Your task to perform on an android device: Go to eBay Image 0: 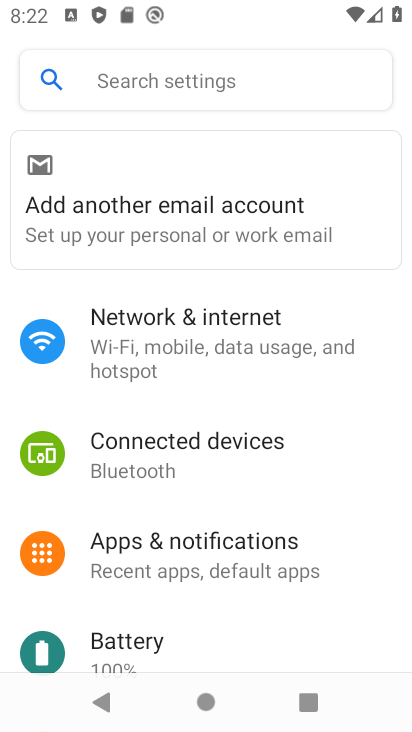
Step 0: press home button
Your task to perform on an android device: Go to eBay Image 1: 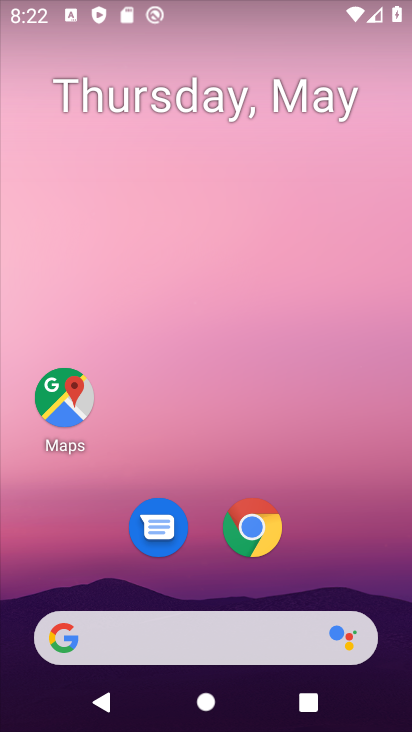
Step 1: click (249, 542)
Your task to perform on an android device: Go to eBay Image 2: 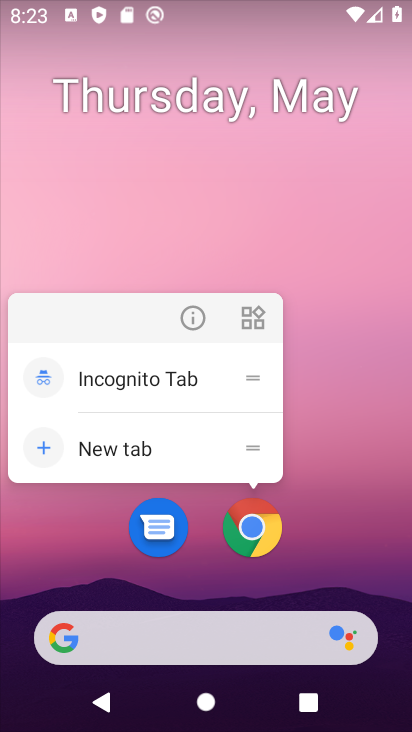
Step 2: click (236, 530)
Your task to perform on an android device: Go to eBay Image 3: 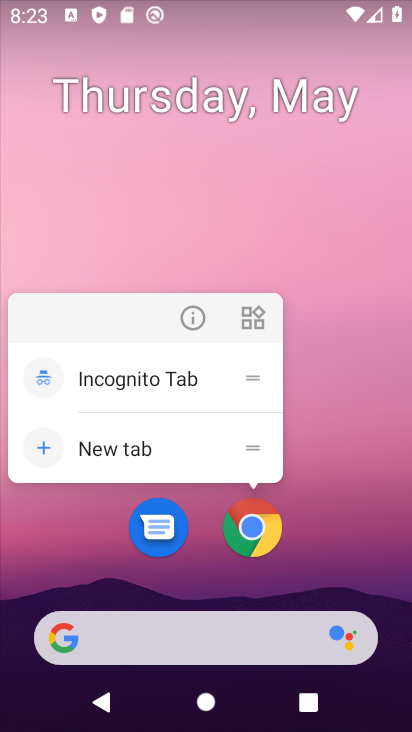
Step 3: click (247, 527)
Your task to perform on an android device: Go to eBay Image 4: 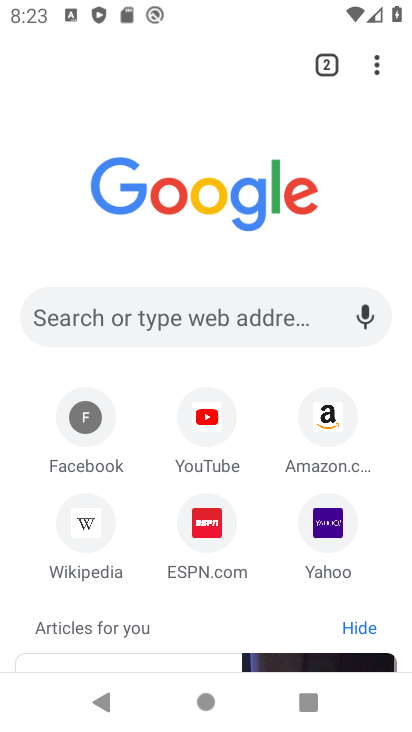
Step 4: click (203, 311)
Your task to perform on an android device: Go to eBay Image 5: 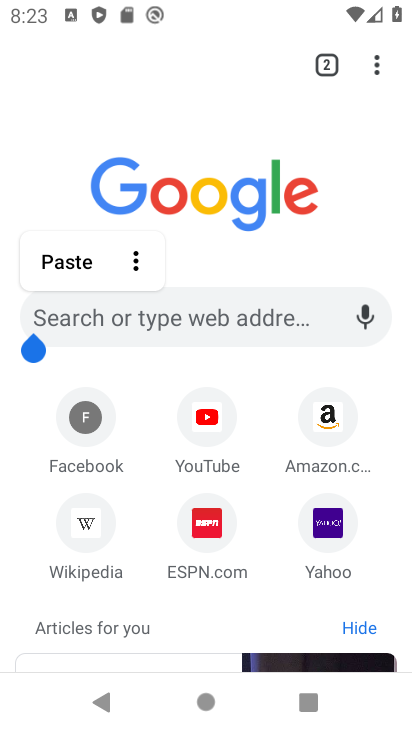
Step 5: click (154, 316)
Your task to perform on an android device: Go to eBay Image 6: 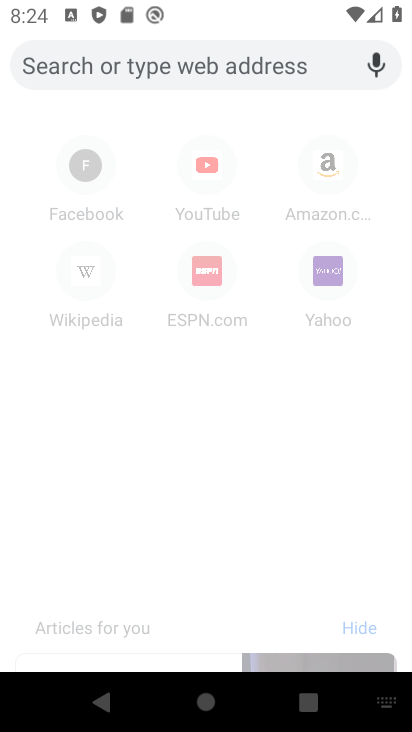
Step 6: type "eBay"
Your task to perform on an android device: Go to eBay Image 7: 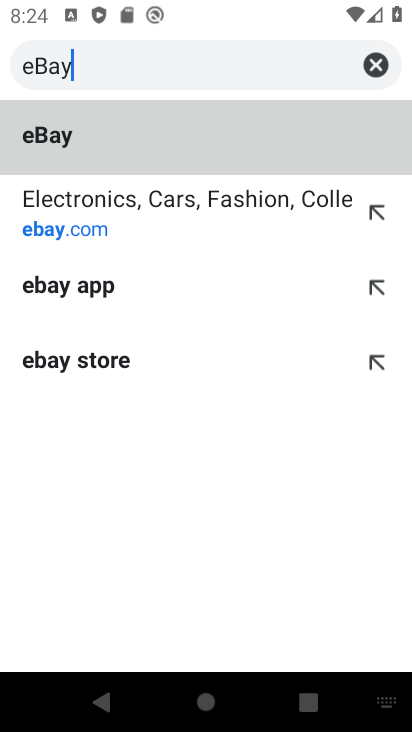
Step 7: type ""
Your task to perform on an android device: Go to eBay Image 8: 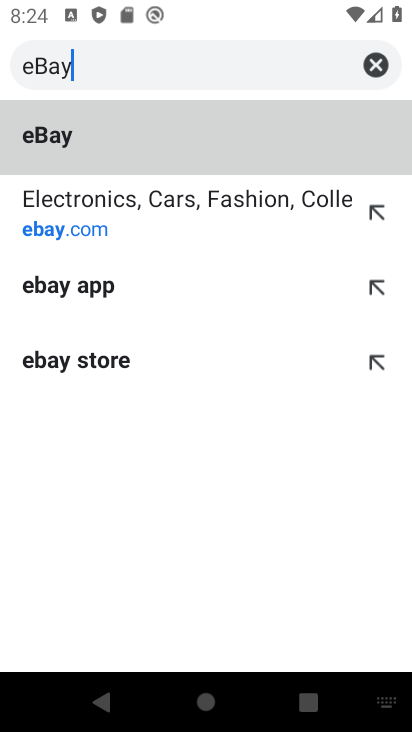
Step 8: click (118, 122)
Your task to perform on an android device: Go to eBay Image 9: 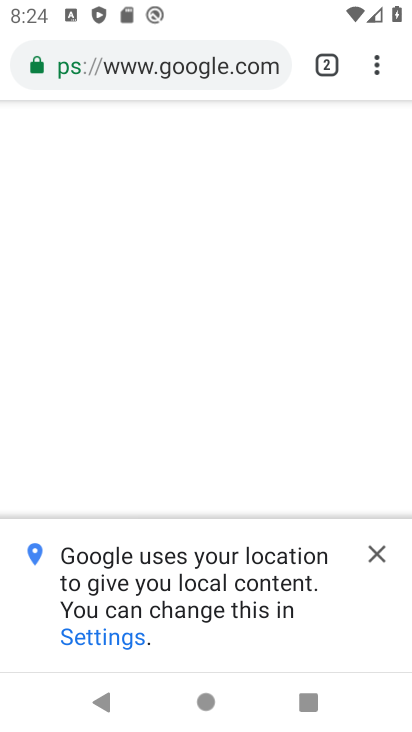
Step 9: click (377, 548)
Your task to perform on an android device: Go to eBay Image 10: 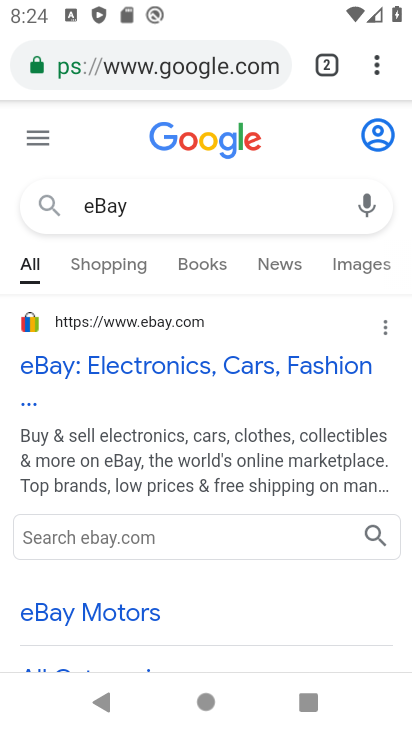
Step 10: click (156, 376)
Your task to perform on an android device: Go to eBay Image 11: 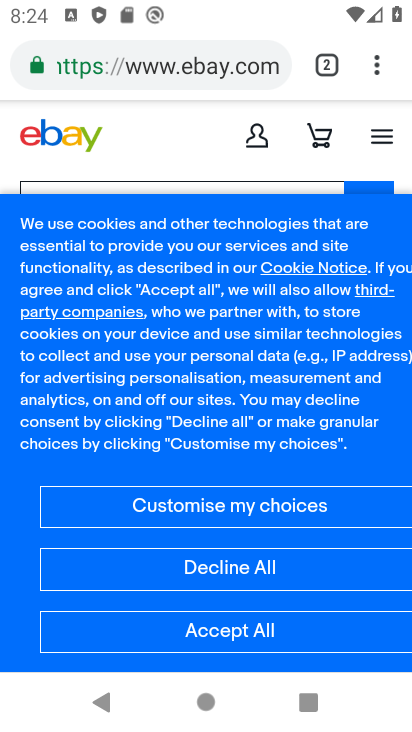
Step 11: task complete